Your task to perform on an android device: turn on the 24-hour format for clock Image 0: 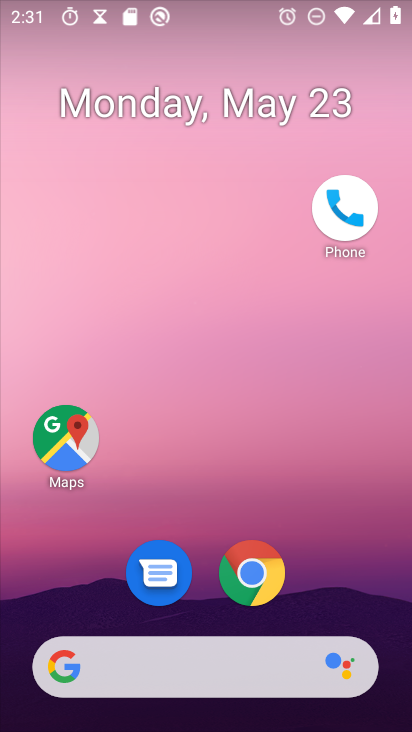
Step 0: drag from (134, 676) to (294, 194)
Your task to perform on an android device: turn on the 24-hour format for clock Image 1: 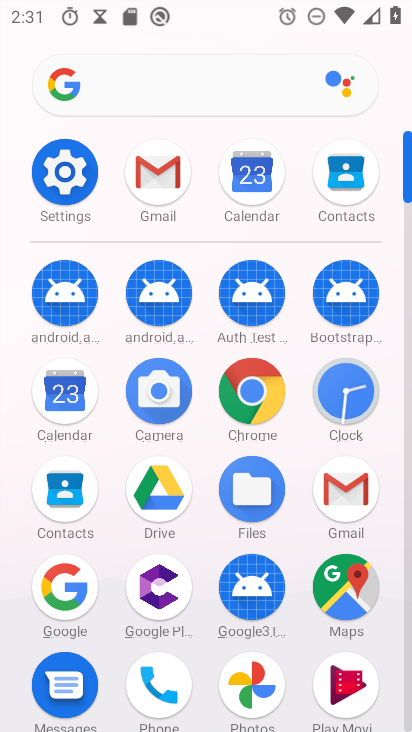
Step 1: click (344, 407)
Your task to perform on an android device: turn on the 24-hour format for clock Image 2: 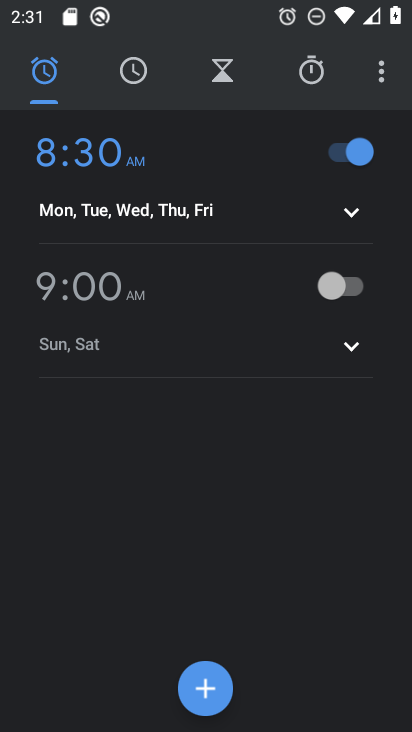
Step 2: click (381, 74)
Your task to perform on an android device: turn on the 24-hour format for clock Image 3: 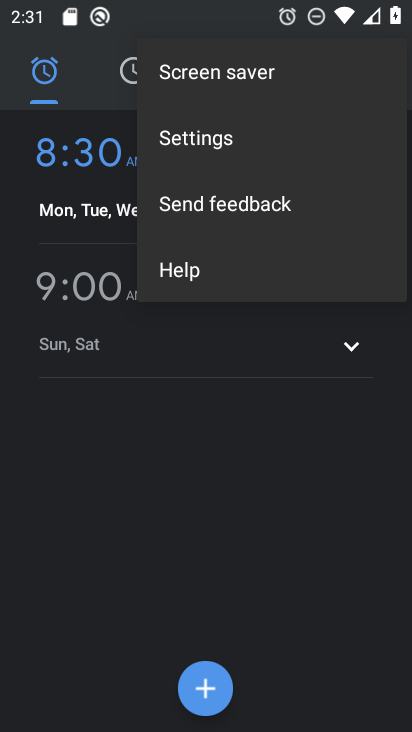
Step 3: click (171, 144)
Your task to perform on an android device: turn on the 24-hour format for clock Image 4: 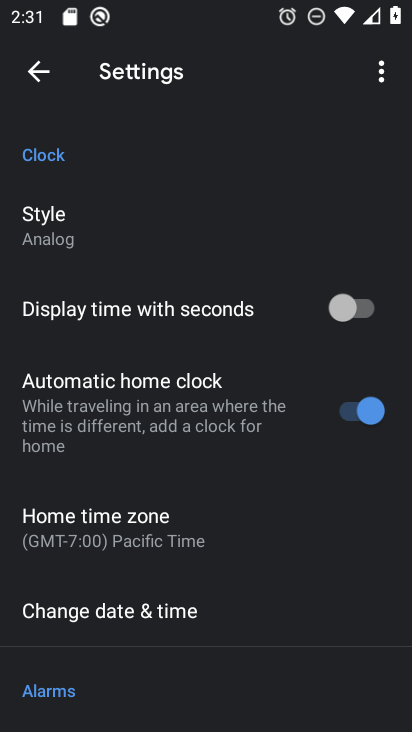
Step 4: drag from (314, 612) to (316, 296)
Your task to perform on an android device: turn on the 24-hour format for clock Image 5: 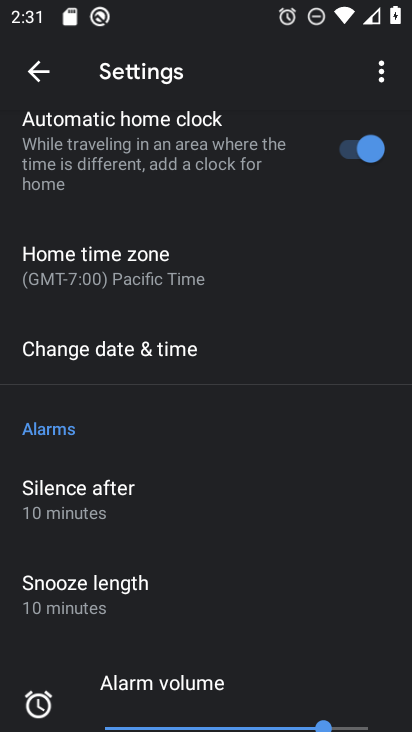
Step 5: click (145, 355)
Your task to perform on an android device: turn on the 24-hour format for clock Image 6: 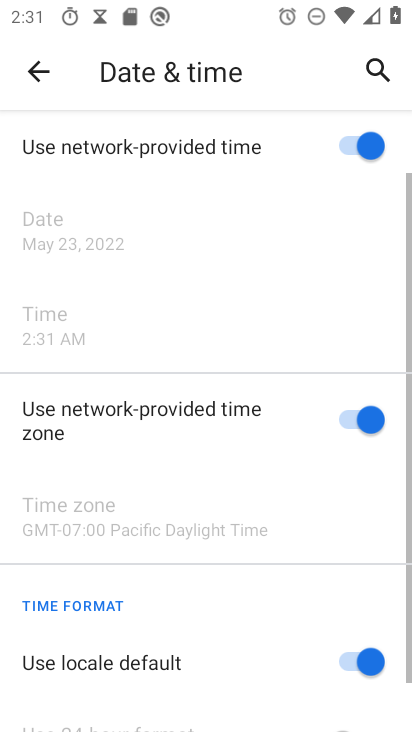
Step 6: drag from (227, 605) to (302, 187)
Your task to perform on an android device: turn on the 24-hour format for clock Image 7: 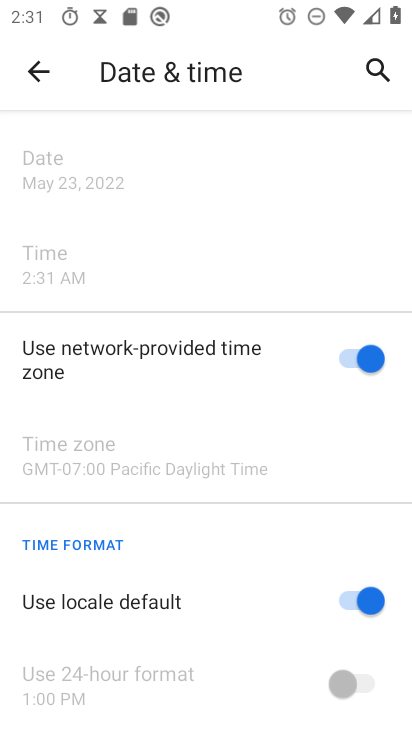
Step 7: click (368, 683)
Your task to perform on an android device: turn on the 24-hour format for clock Image 8: 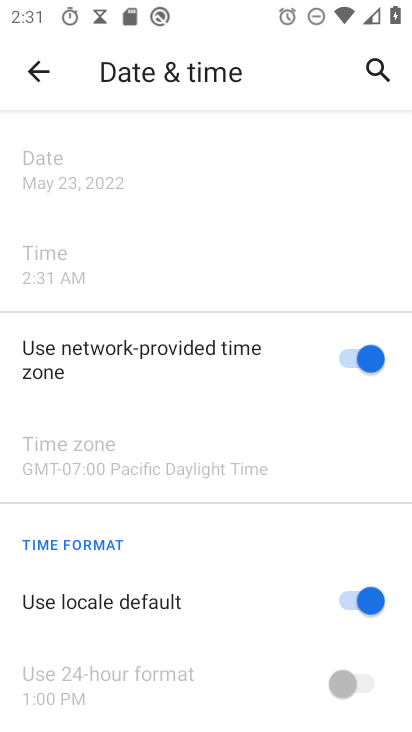
Step 8: click (347, 604)
Your task to perform on an android device: turn on the 24-hour format for clock Image 9: 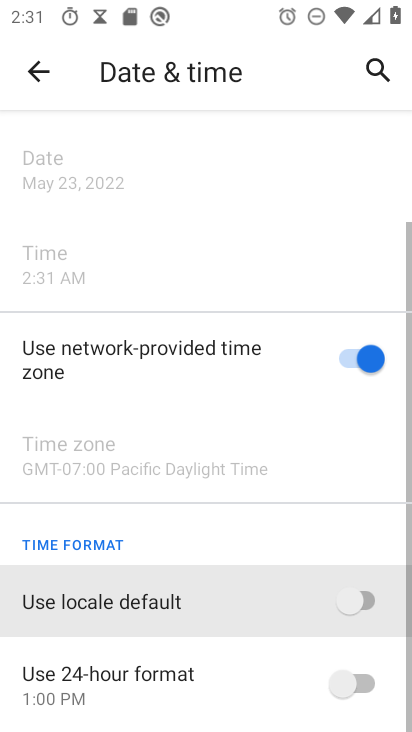
Step 9: click (369, 684)
Your task to perform on an android device: turn on the 24-hour format for clock Image 10: 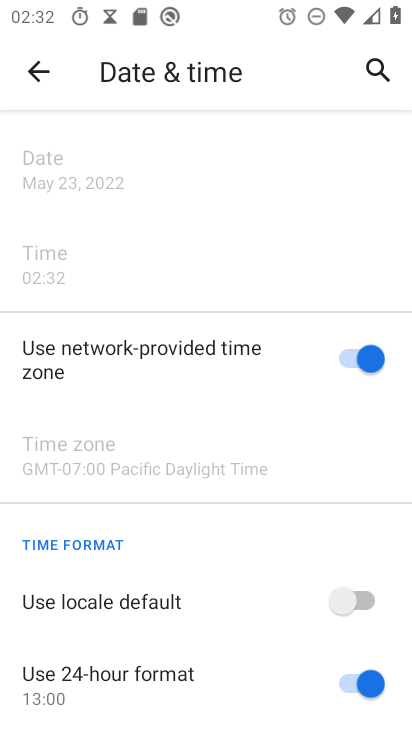
Step 10: task complete